Your task to perform on an android device: open app "Spotify" (install if not already installed) and enter user name: "infallible@icloud.com" and password: "implored" Image 0: 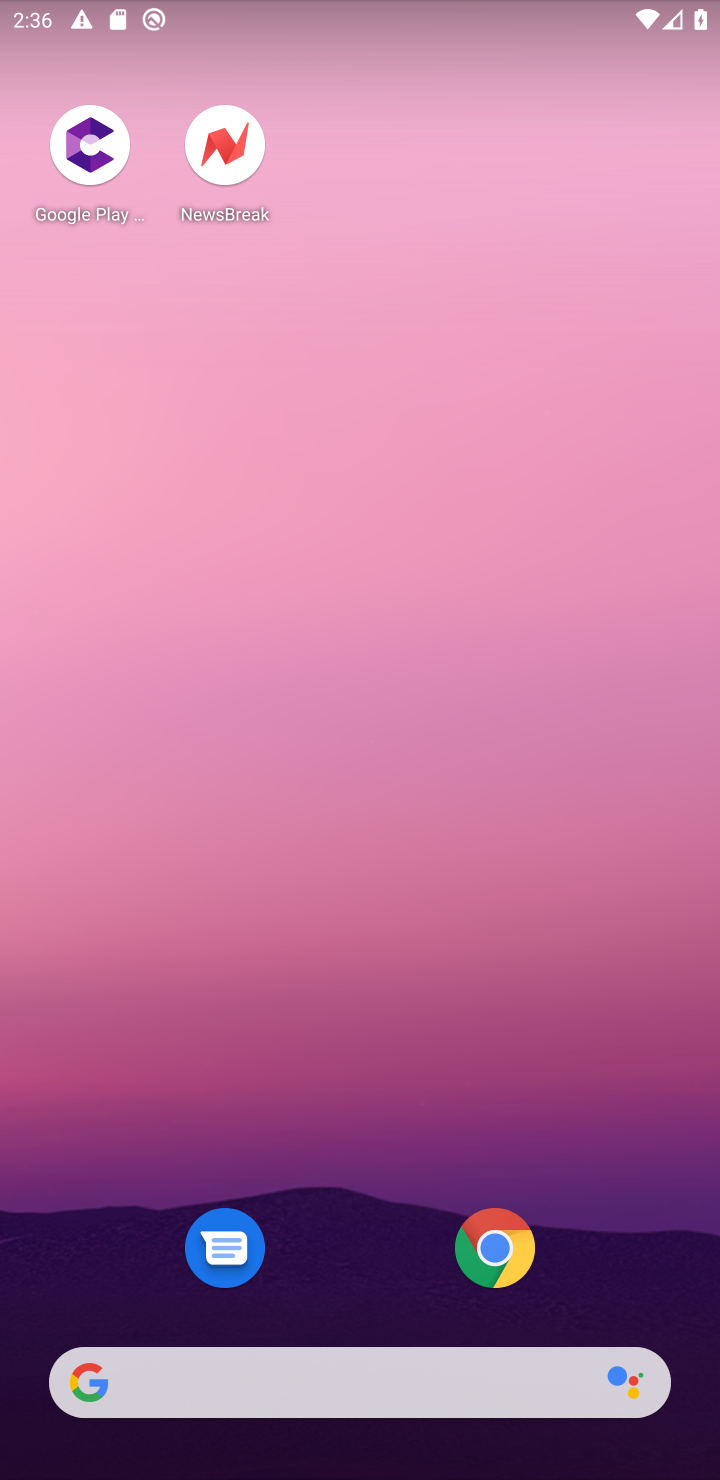
Step 0: drag from (321, 524) to (303, 30)
Your task to perform on an android device: open app "Spotify" (install if not already installed) and enter user name: "infallible@icloud.com" and password: "implored" Image 1: 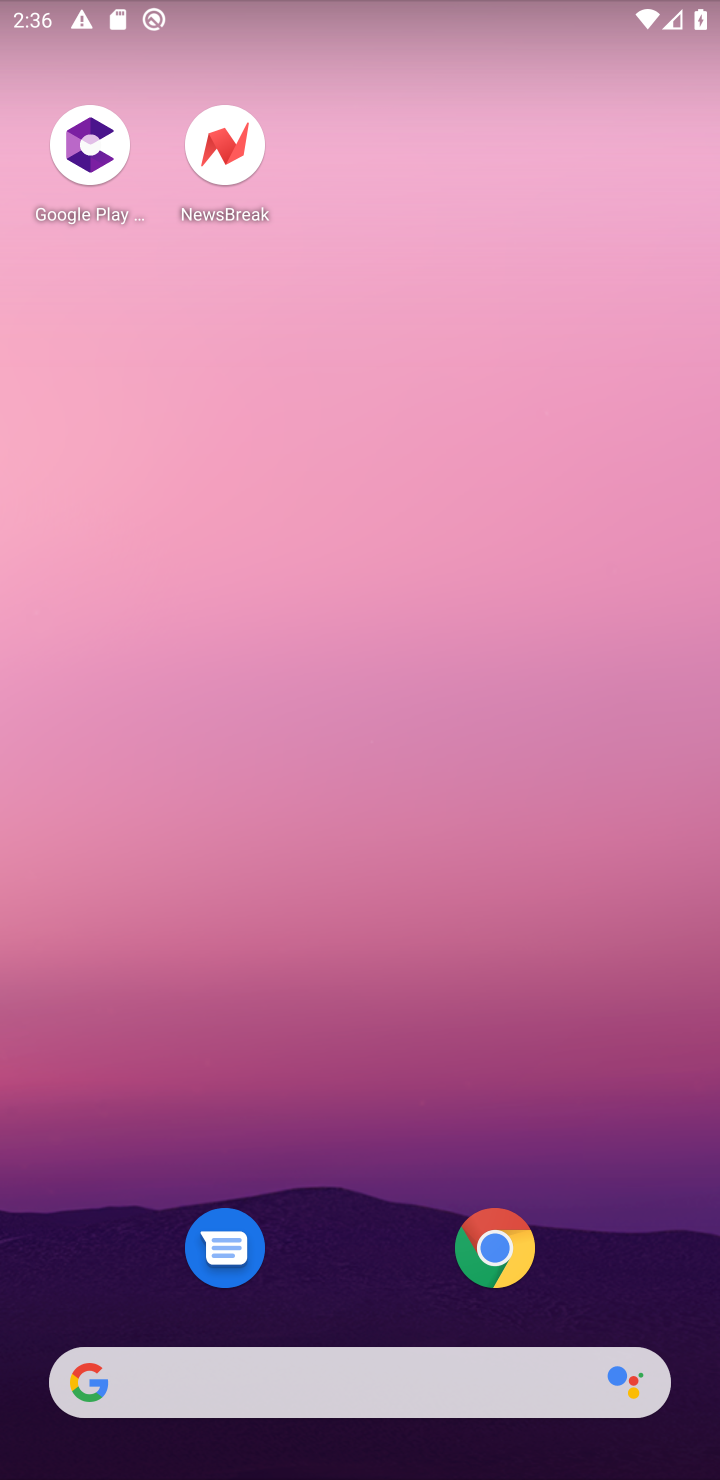
Step 1: drag from (377, 1178) to (379, 65)
Your task to perform on an android device: open app "Spotify" (install if not already installed) and enter user name: "infallible@icloud.com" and password: "implored" Image 2: 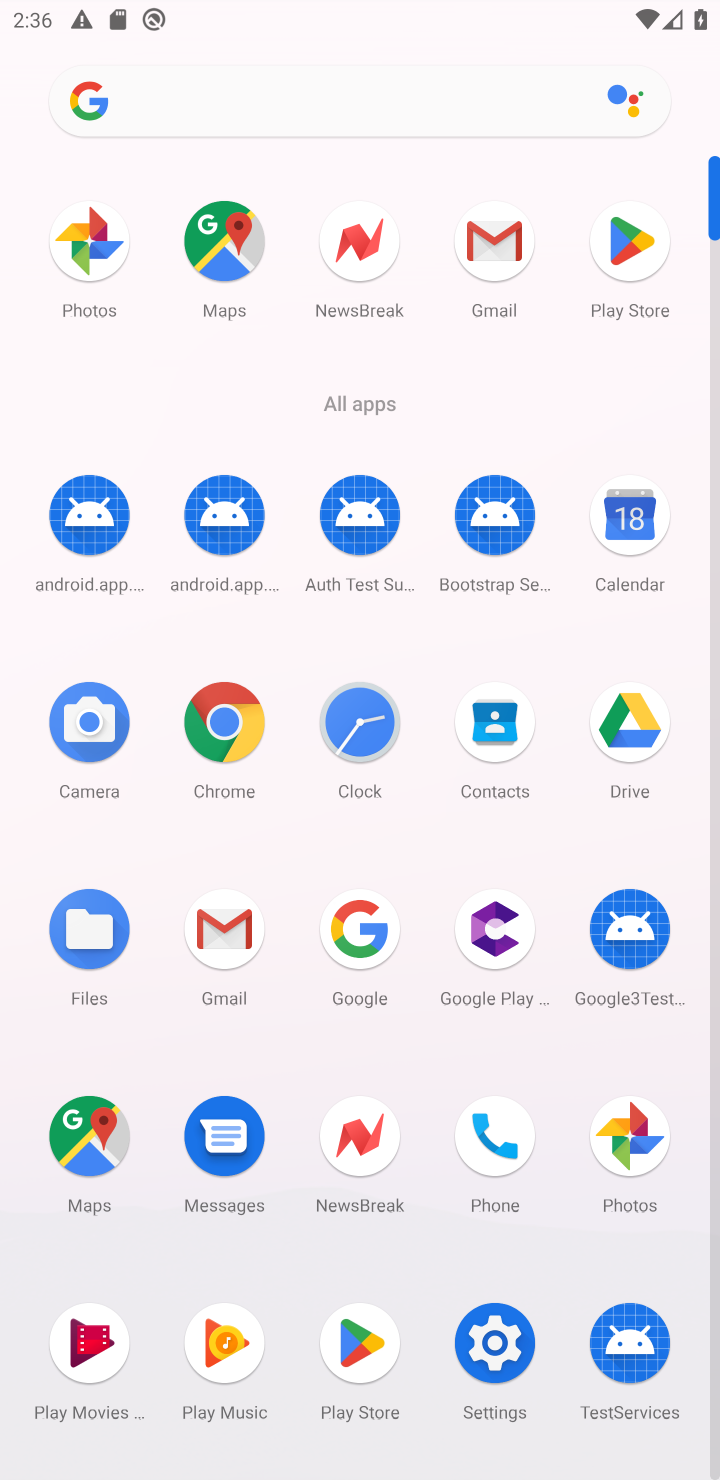
Step 2: click (348, 1341)
Your task to perform on an android device: open app "Spotify" (install if not already installed) and enter user name: "infallible@icloud.com" and password: "implored" Image 3: 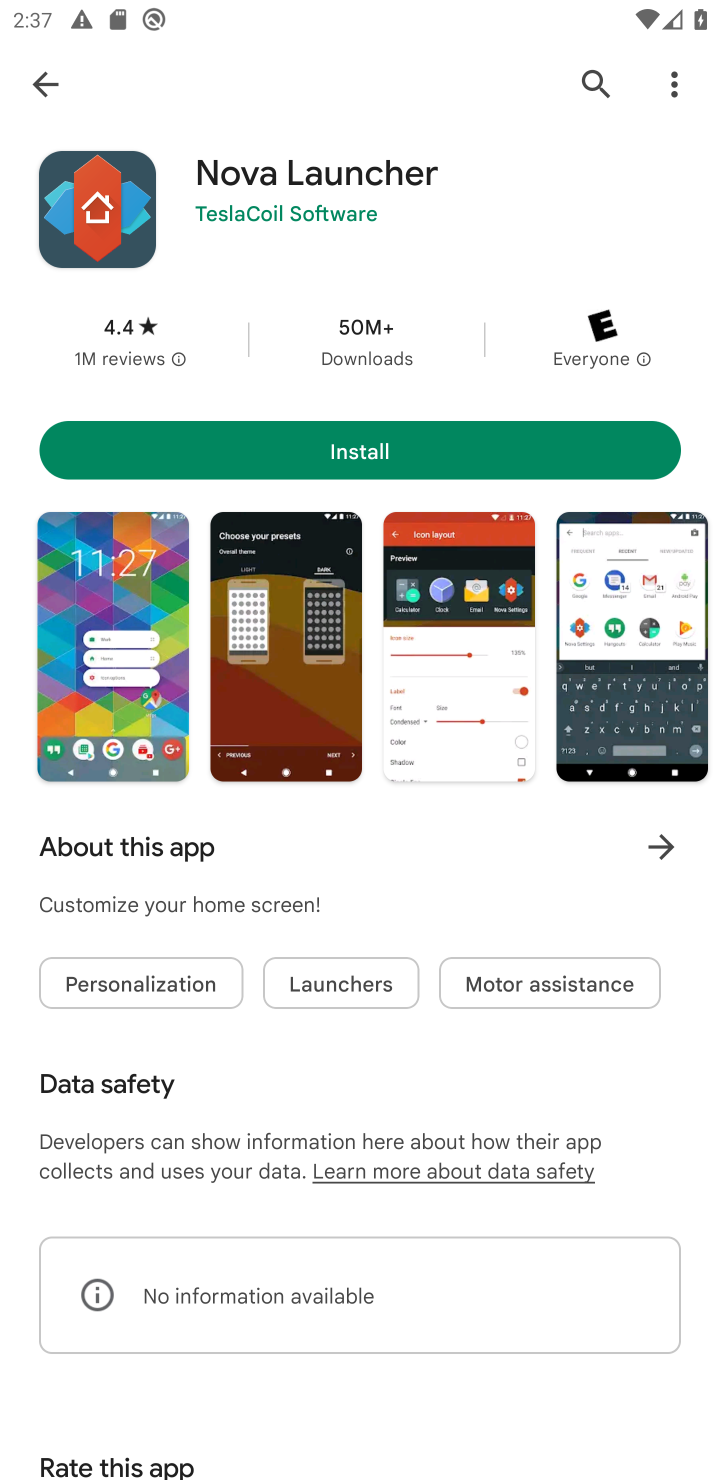
Step 3: click (596, 79)
Your task to perform on an android device: open app "Spotify" (install if not already installed) and enter user name: "infallible@icloud.com" and password: "implored" Image 4: 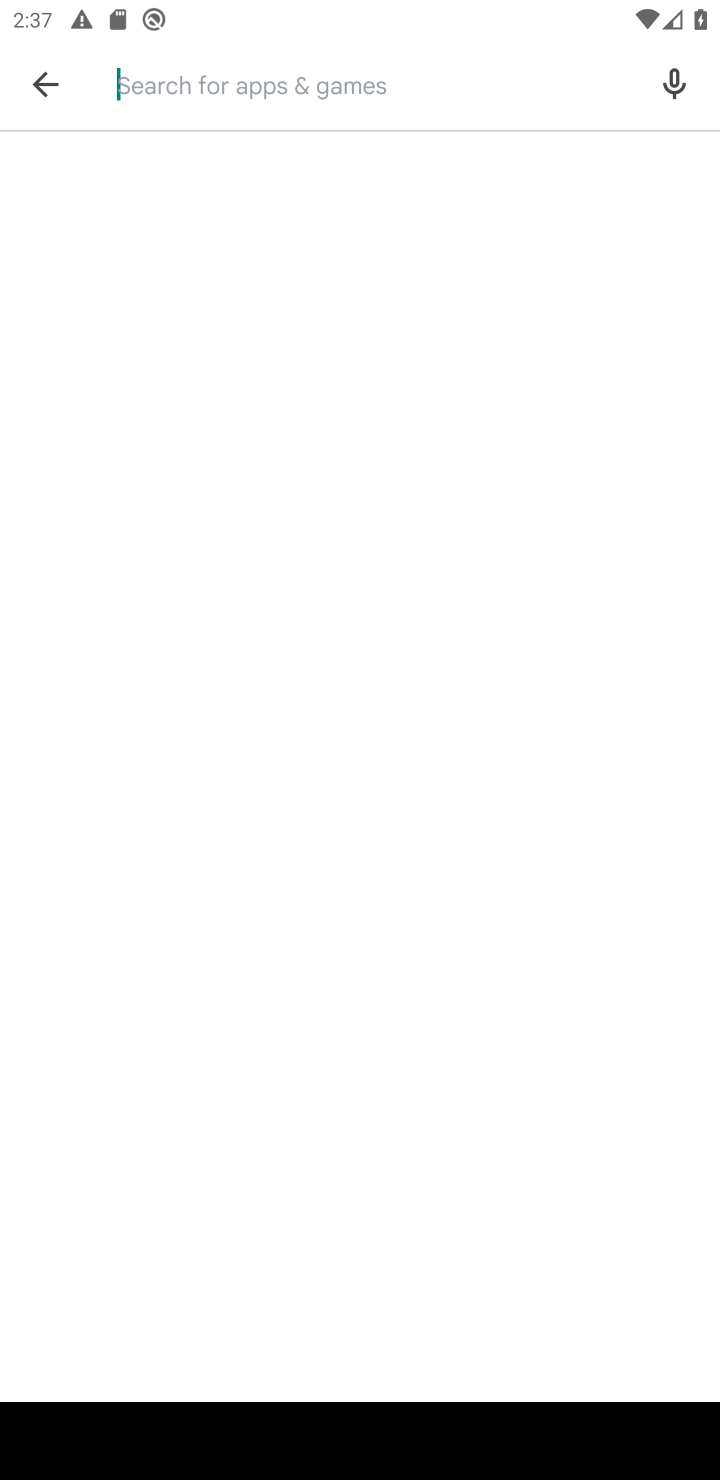
Step 4: type "Spotify"
Your task to perform on an android device: open app "Spotify" (install if not already installed) and enter user name: "infallible@icloud.com" and password: "implored" Image 5: 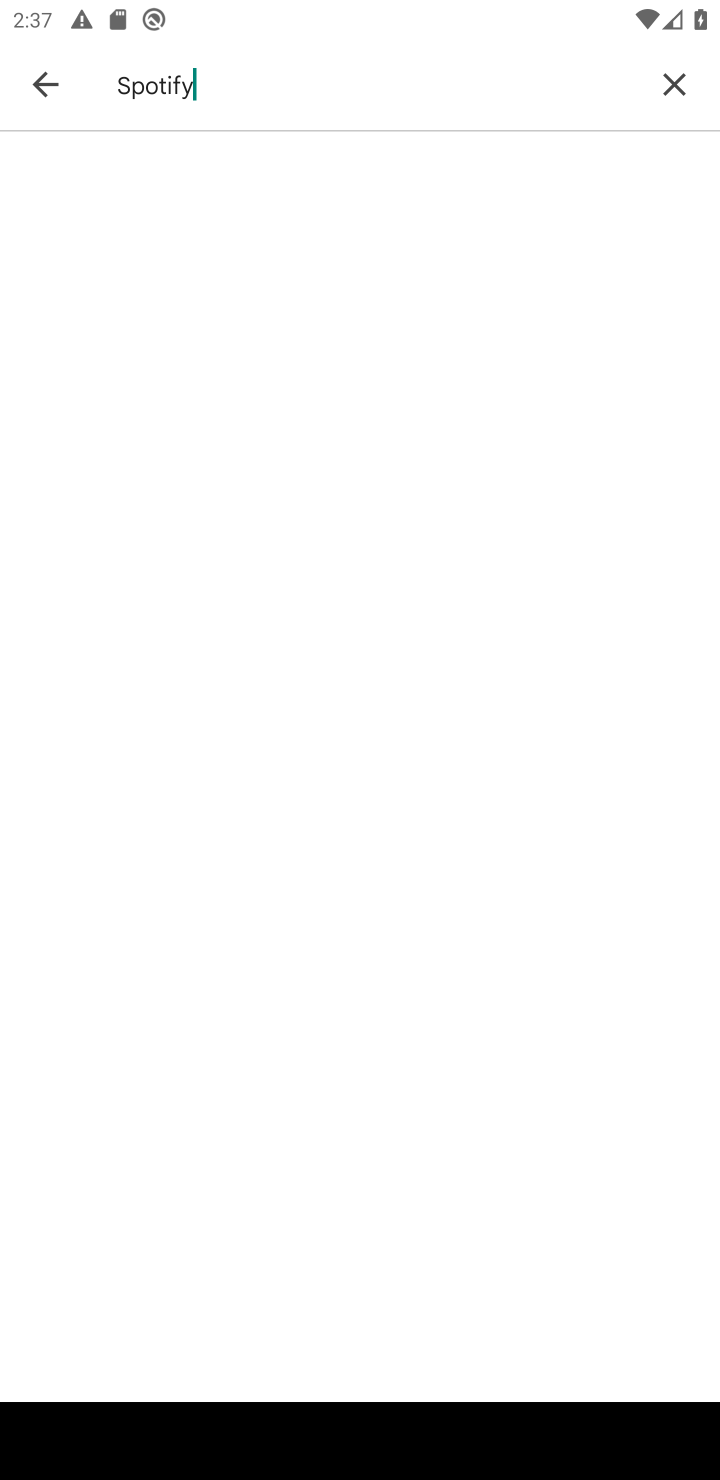
Step 5: type ""
Your task to perform on an android device: open app "Spotify" (install if not already installed) and enter user name: "infallible@icloud.com" and password: "implored" Image 6: 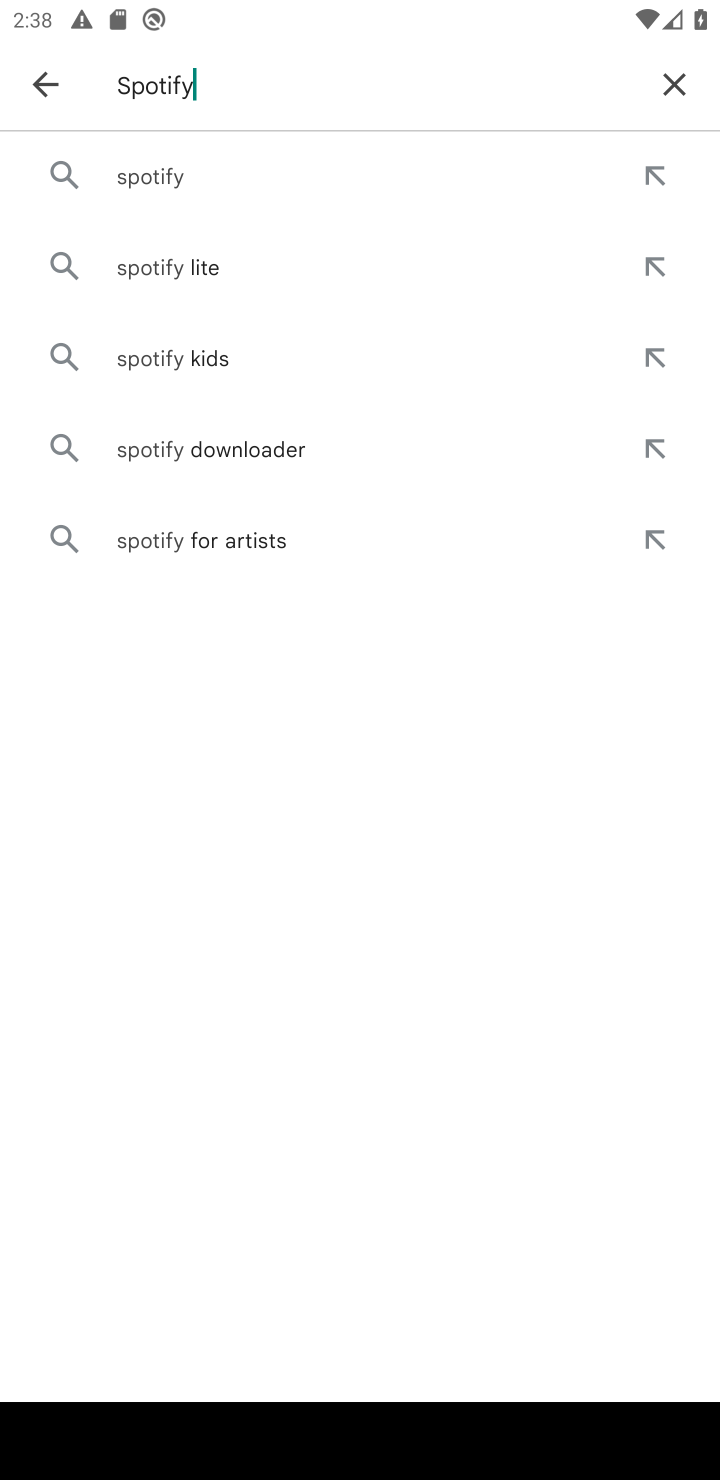
Step 6: click (139, 171)
Your task to perform on an android device: open app "Spotify" (install if not already installed) and enter user name: "infallible@icloud.com" and password: "implored" Image 7: 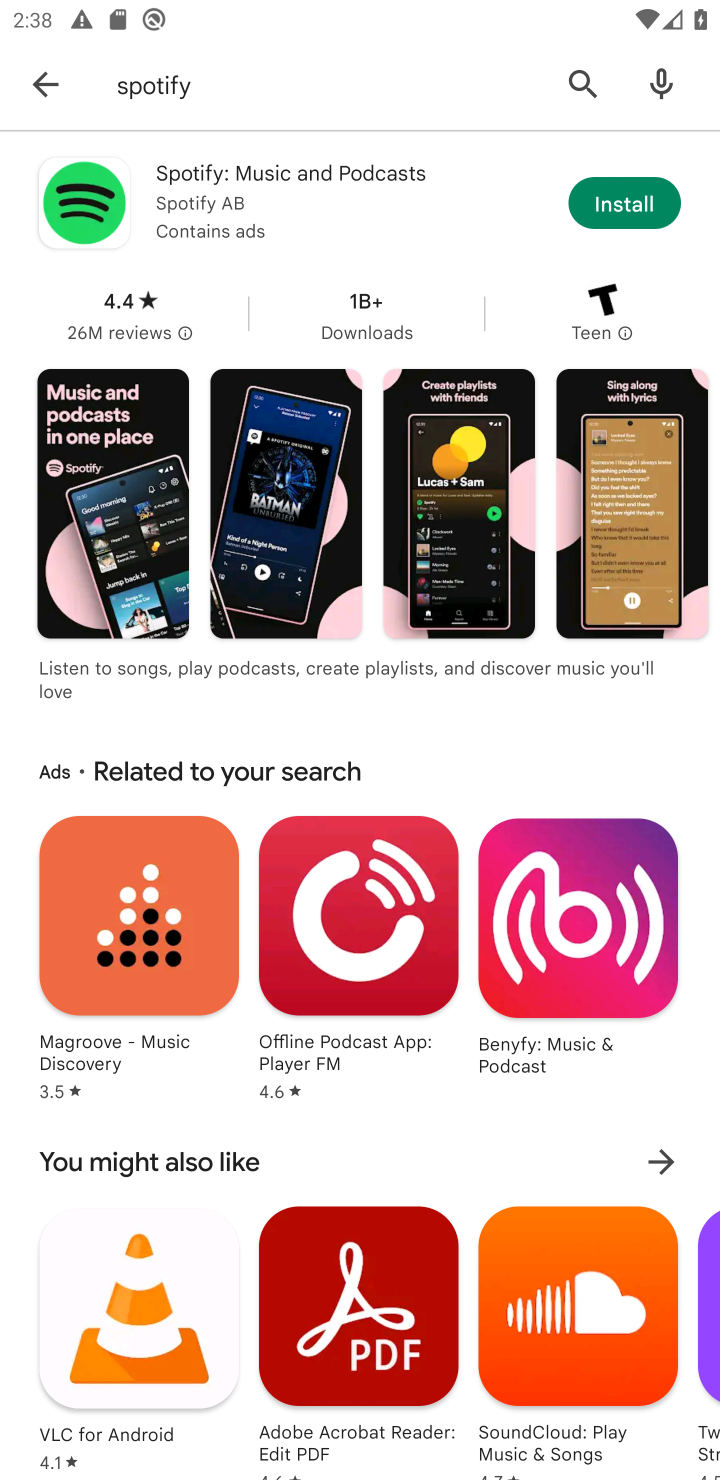
Step 7: click (633, 203)
Your task to perform on an android device: open app "Spotify" (install if not already installed) and enter user name: "infallible@icloud.com" and password: "implored" Image 8: 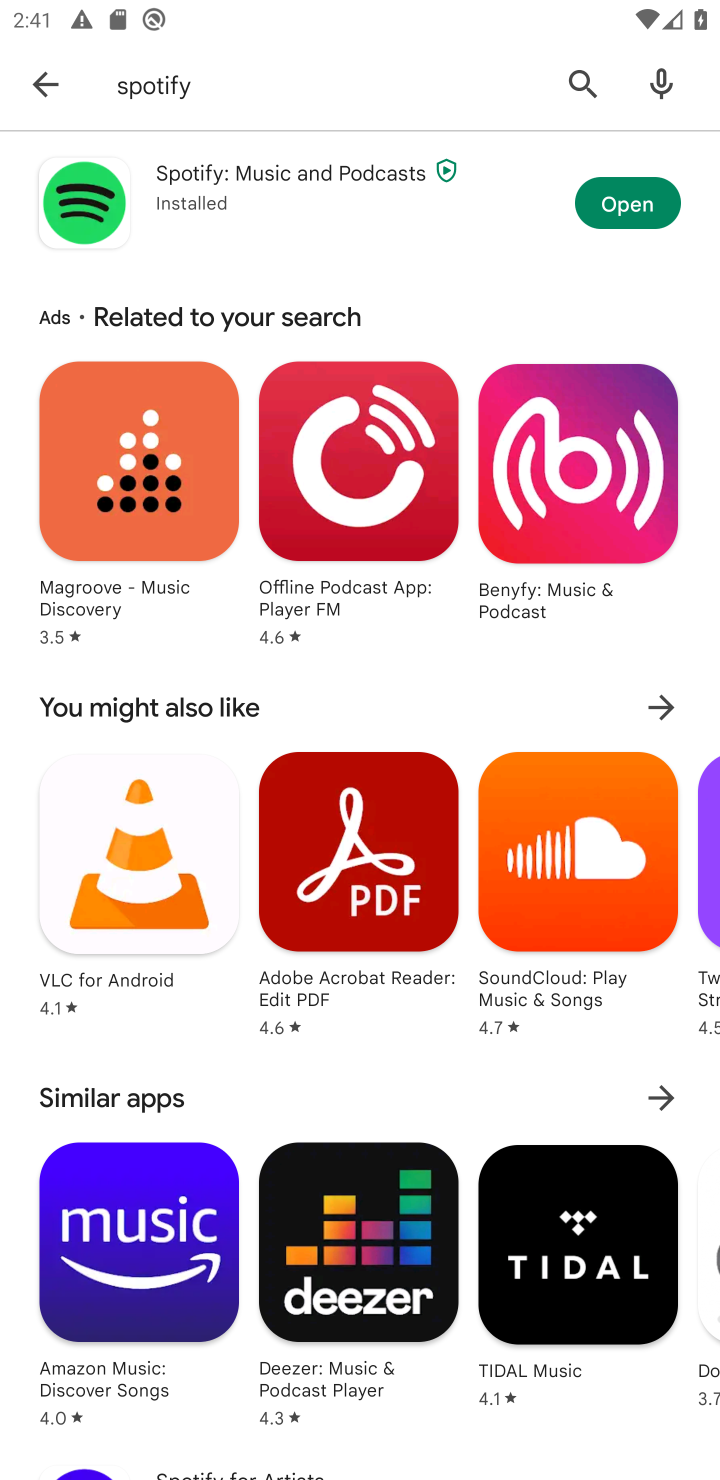
Step 8: click (618, 198)
Your task to perform on an android device: open app "Spotify" (install if not already installed) and enter user name: "infallible@icloud.com" and password: "implored" Image 9: 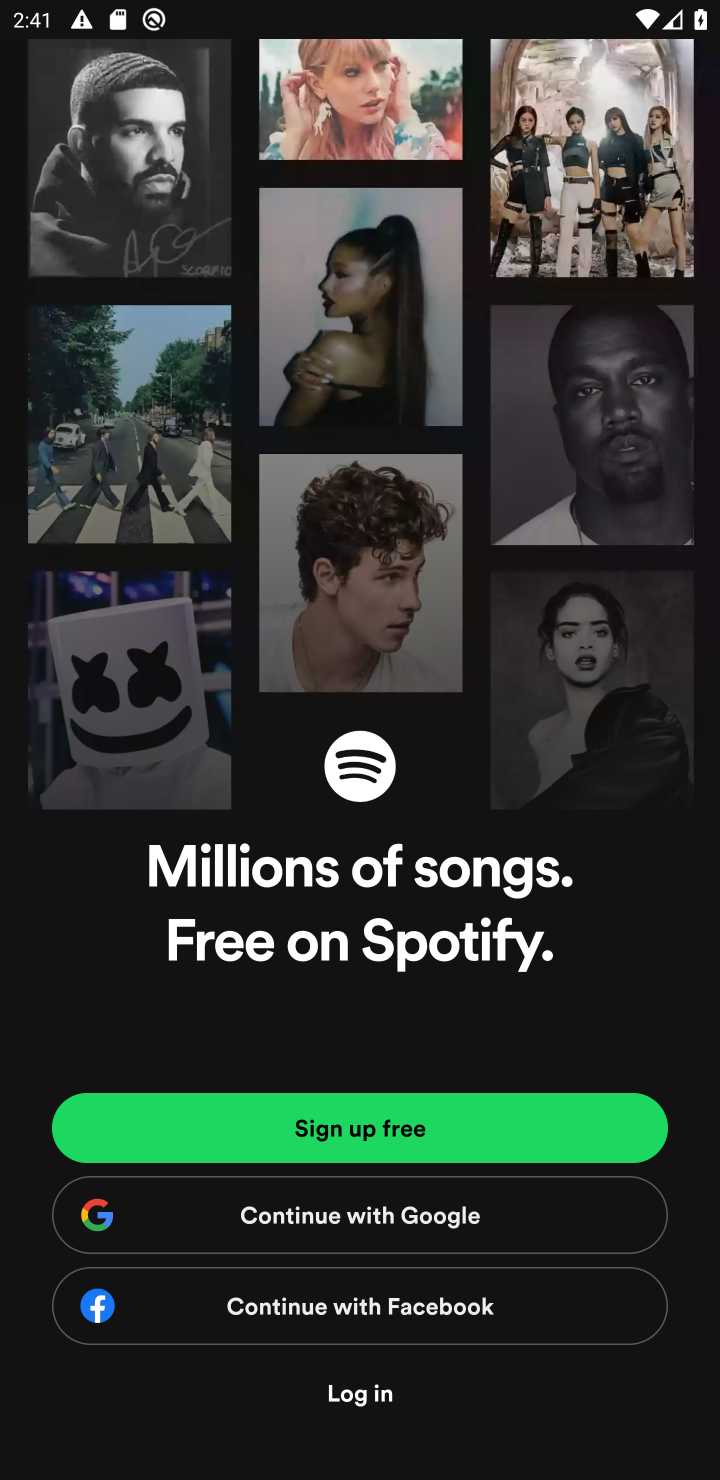
Step 9: click (372, 1393)
Your task to perform on an android device: open app "Spotify" (install if not already installed) and enter user name: "infallible@icloud.com" and password: "implored" Image 10: 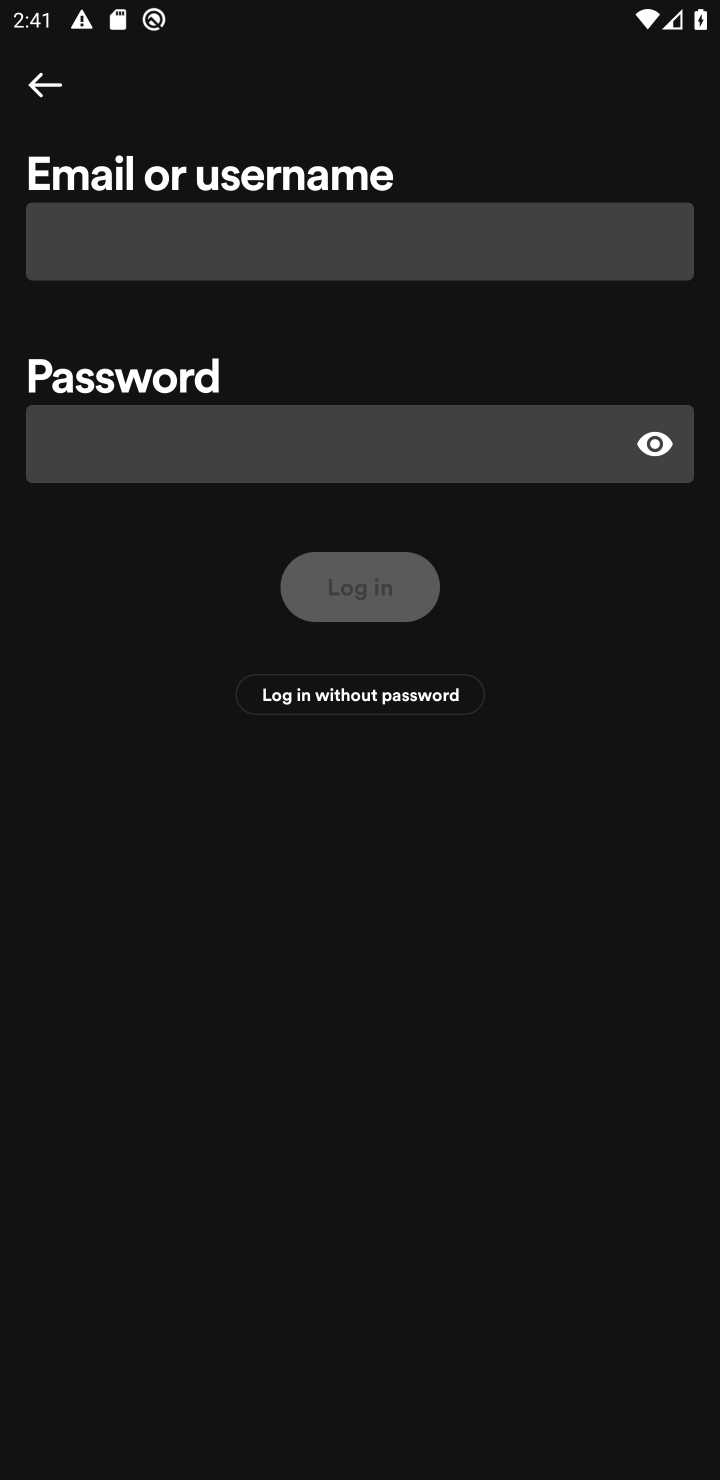
Step 10: click (235, 247)
Your task to perform on an android device: open app "Spotify" (install if not already installed) and enter user name: "infallible@icloud.com" and password: "implored" Image 11: 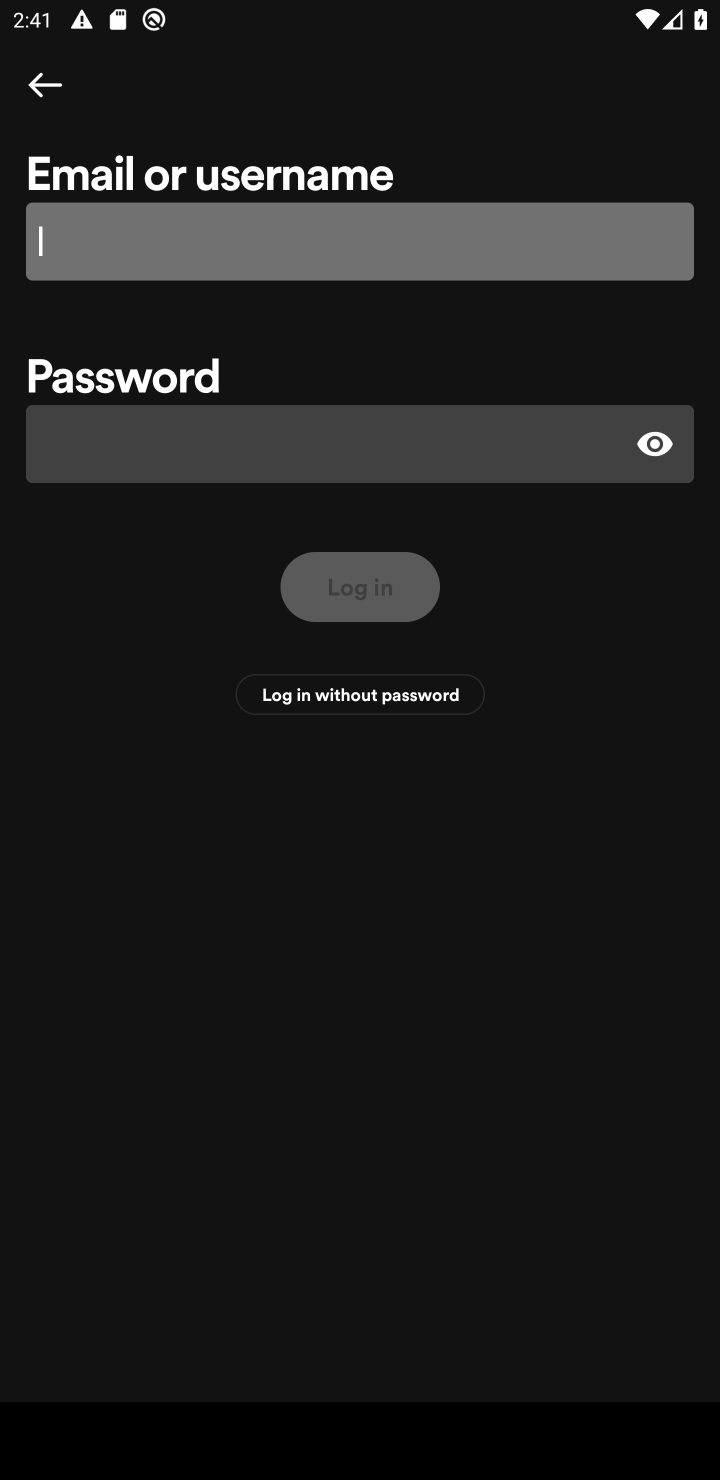
Step 11: type "infallible@icloud.com"
Your task to perform on an android device: open app "Spotify" (install if not already installed) and enter user name: "infallible@icloud.com" and password: "implored" Image 12: 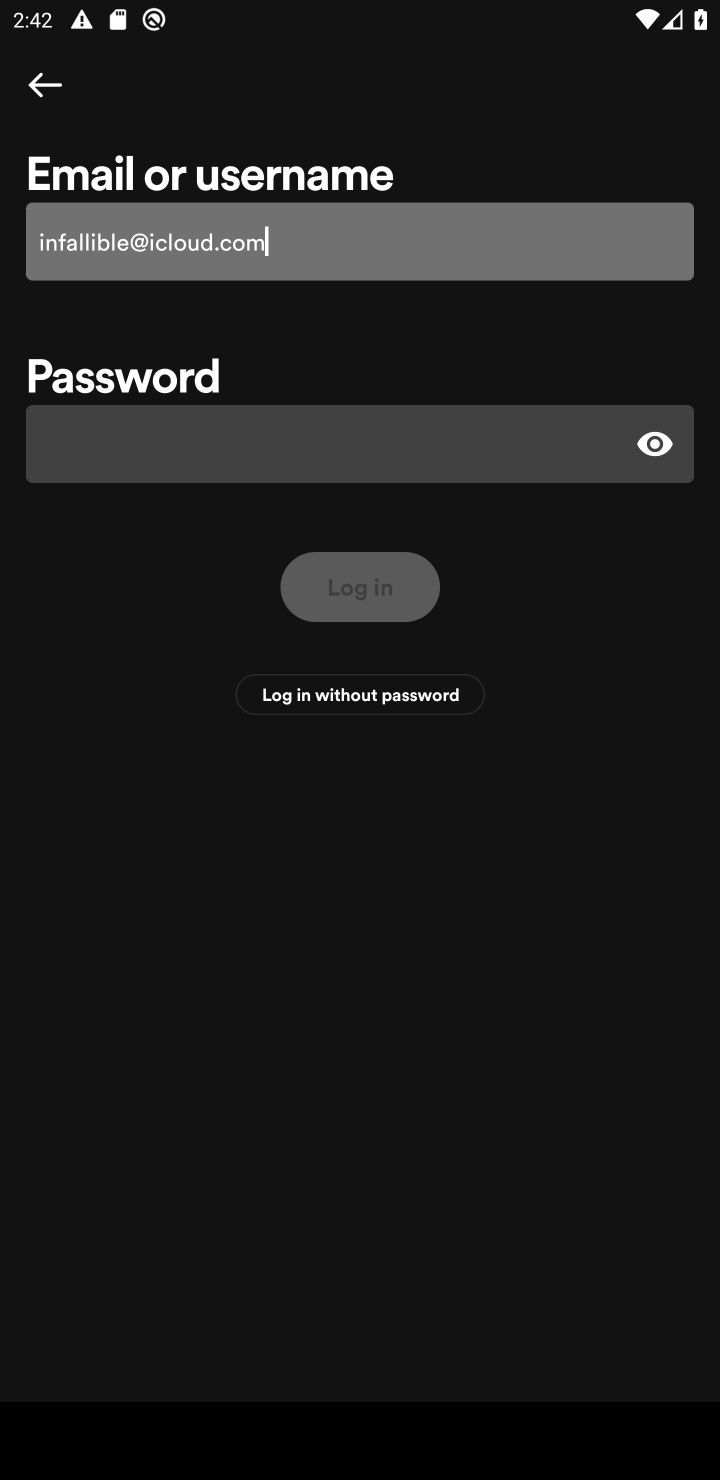
Step 12: click (142, 428)
Your task to perform on an android device: open app "Spotify" (install if not already installed) and enter user name: "infallible@icloud.com" and password: "implored" Image 13: 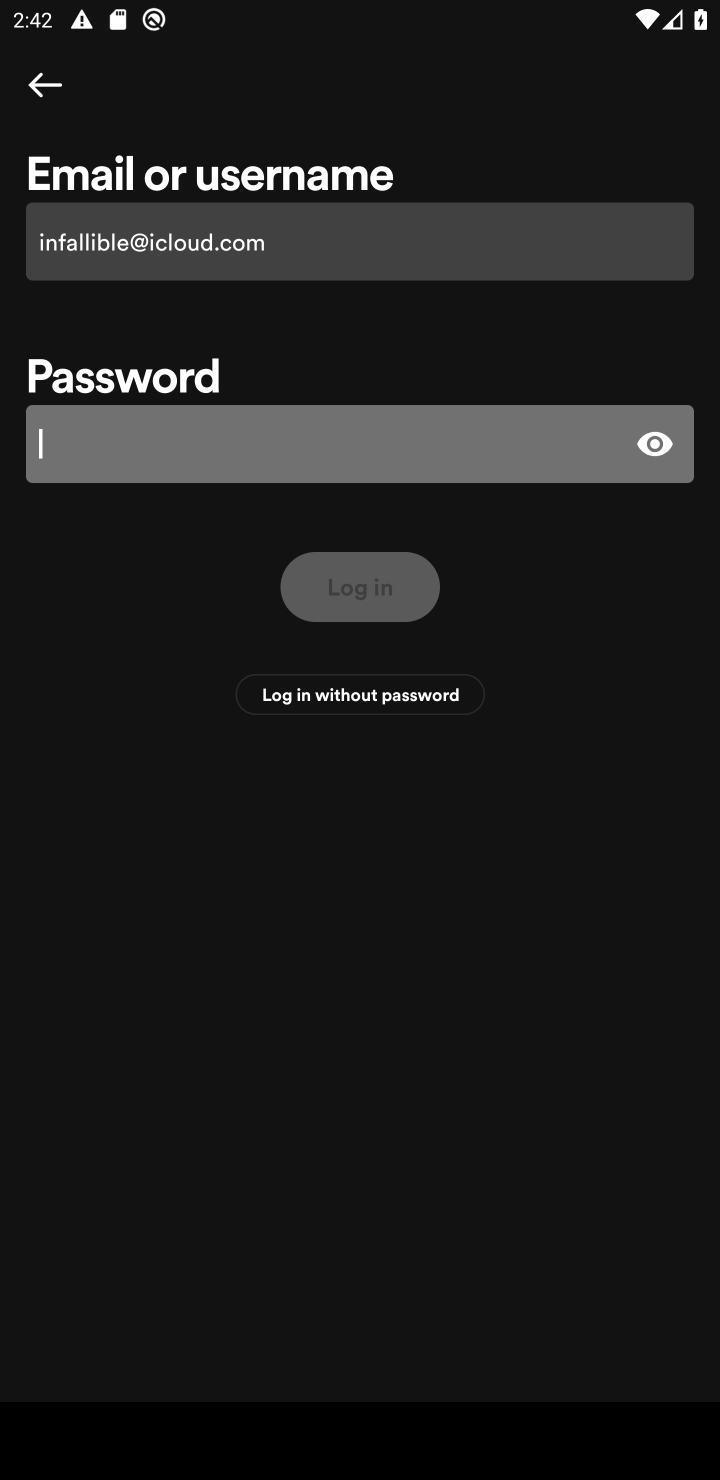
Step 13: type "implored"
Your task to perform on an android device: open app "Spotify" (install if not already installed) and enter user name: "infallible@icloud.com" and password: "implored" Image 14: 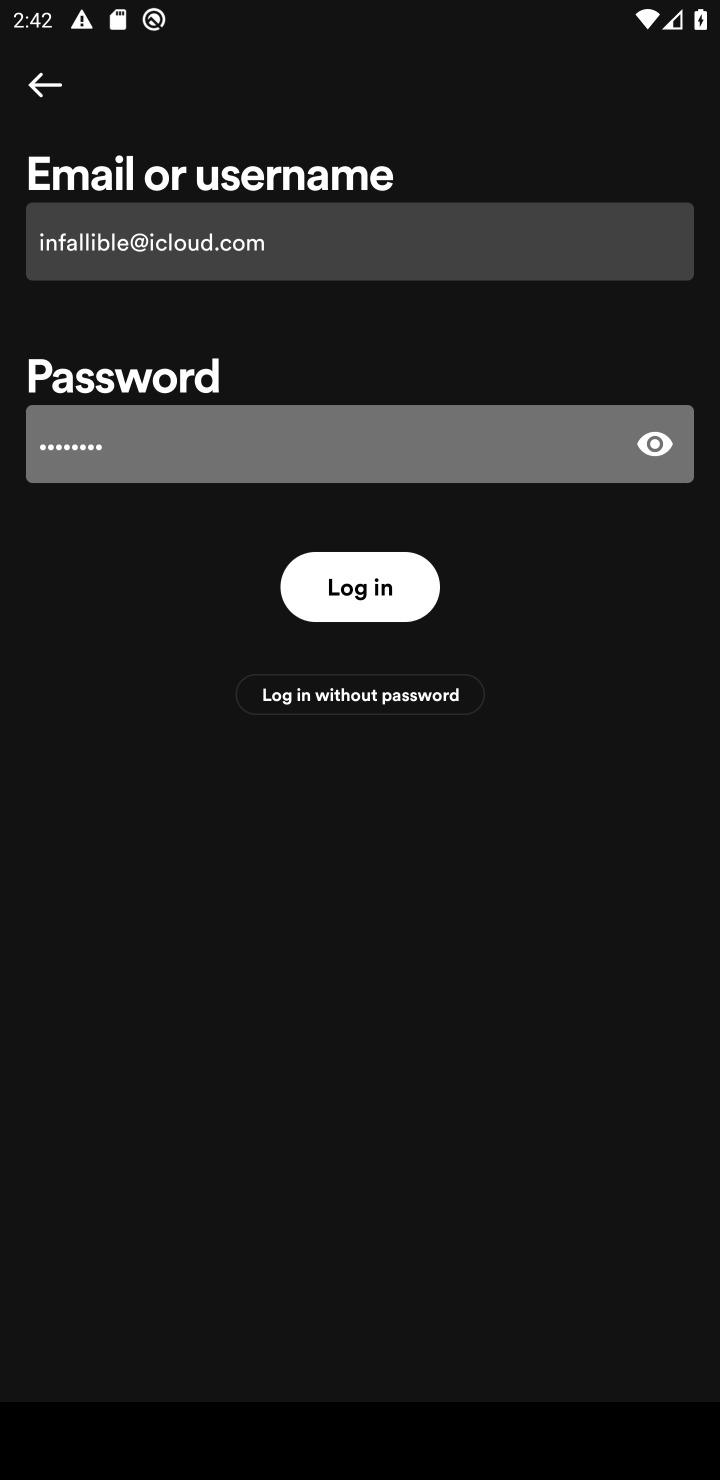
Step 14: task complete